Your task to perform on an android device: check the backup settings in the google photos Image 0: 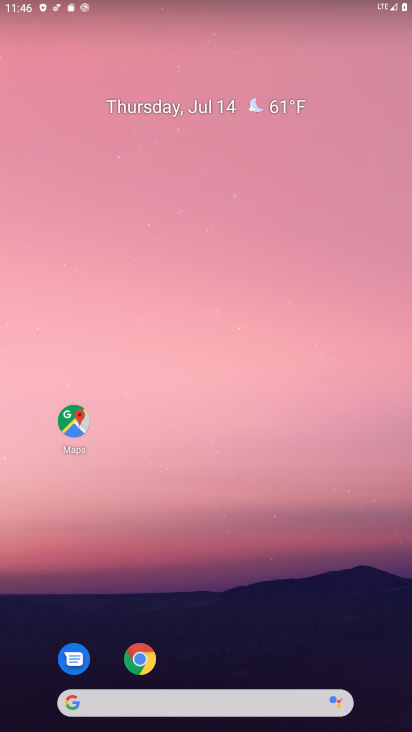
Step 0: drag from (210, 703) to (129, 83)
Your task to perform on an android device: check the backup settings in the google photos Image 1: 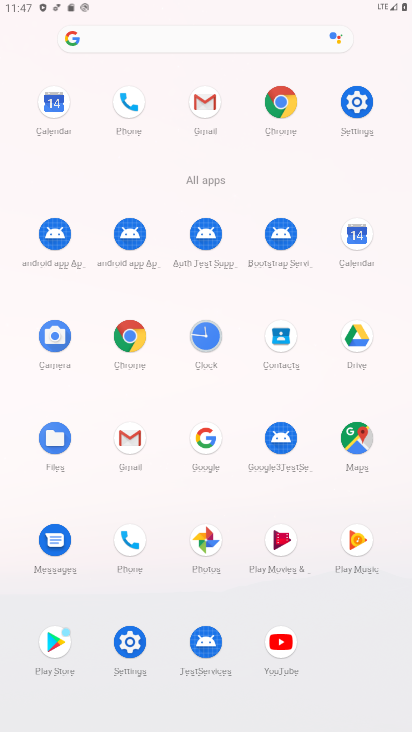
Step 1: click (208, 539)
Your task to perform on an android device: check the backup settings in the google photos Image 2: 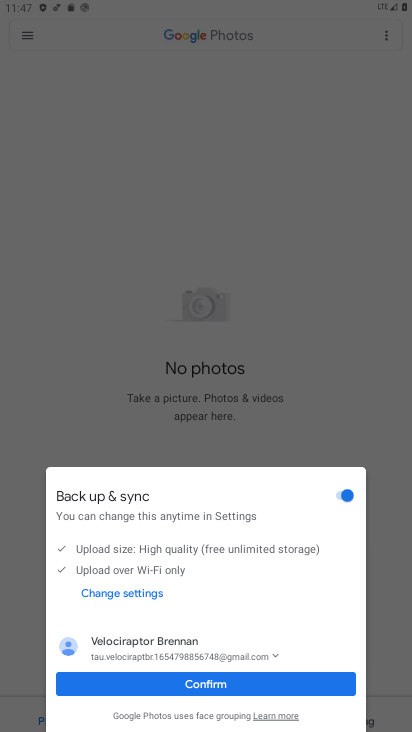
Step 2: click (200, 685)
Your task to perform on an android device: check the backup settings in the google photos Image 3: 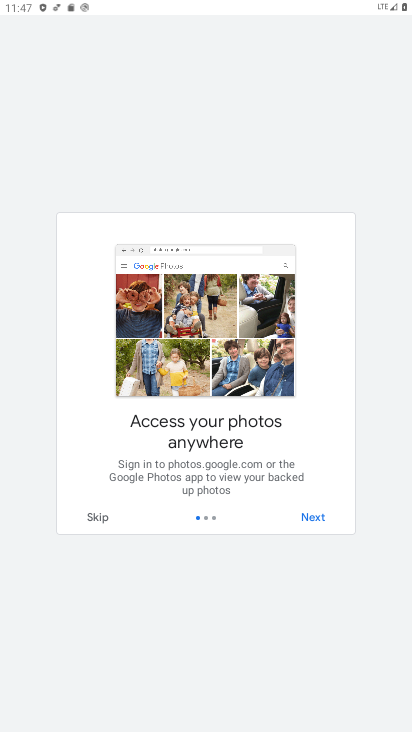
Step 3: click (304, 519)
Your task to perform on an android device: check the backup settings in the google photos Image 4: 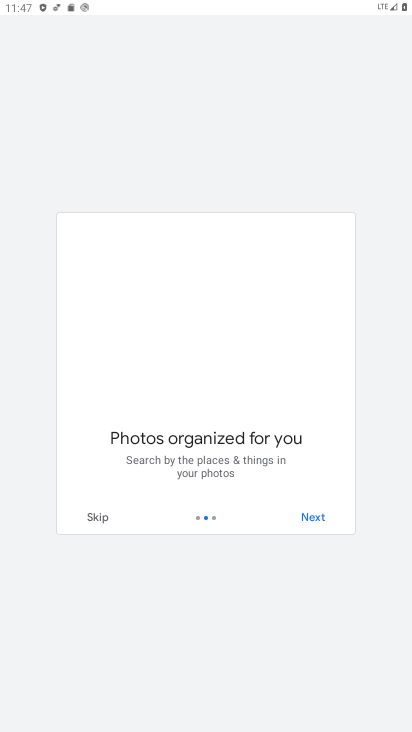
Step 4: click (304, 519)
Your task to perform on an android device: check the backup settings in the google photos Image 5: 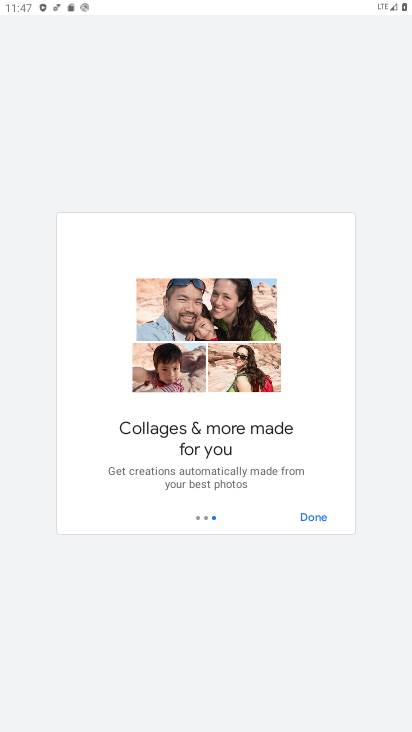
Step 5: click (304, 519)
Your task to perform on an android device: check the backup settings in the google photos Image 6: 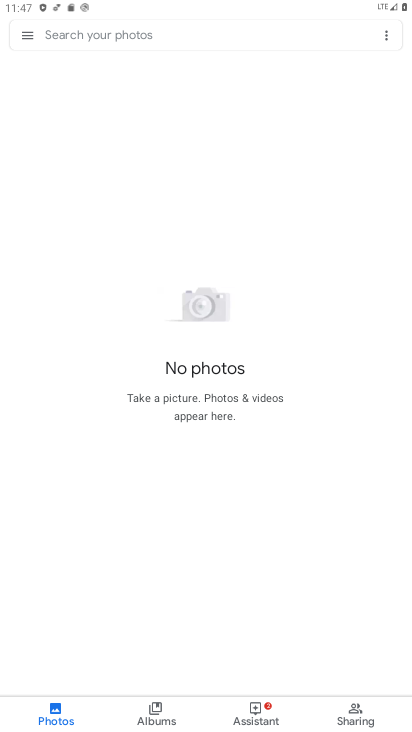
Step 6: click (27, 33)
Your task to perform on an android device: check the backup settings in the google photos Image 7: 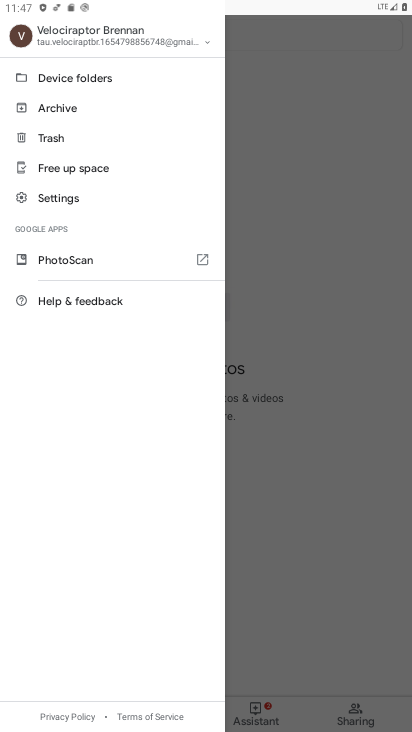
Step 7: click (54, 197)
Your task to perform on an android device: check the backup settings in the google photos Image 8: 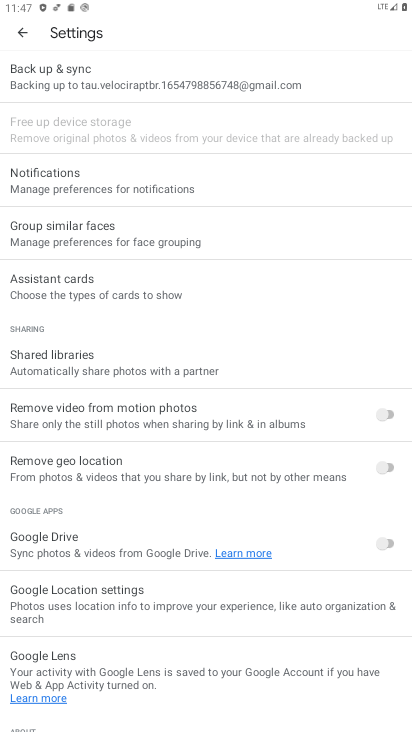
Step 8: click (97, 88)
Your task to perform on an android device: check the backup settings in the google photos Image 9: 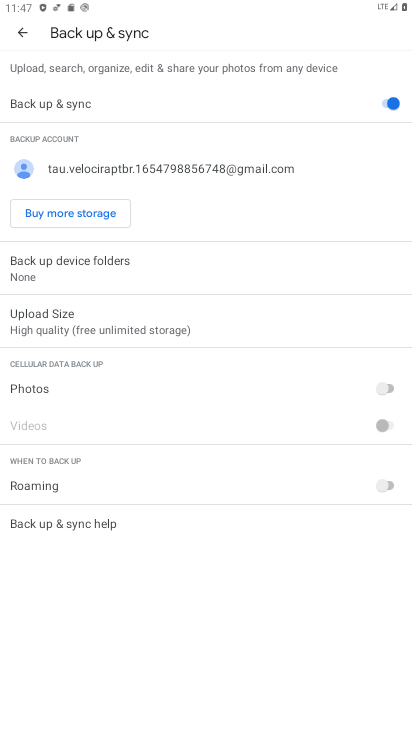
Step 9: task complete